Your task to perform on an android device: Go to Reddit.com Image 0: 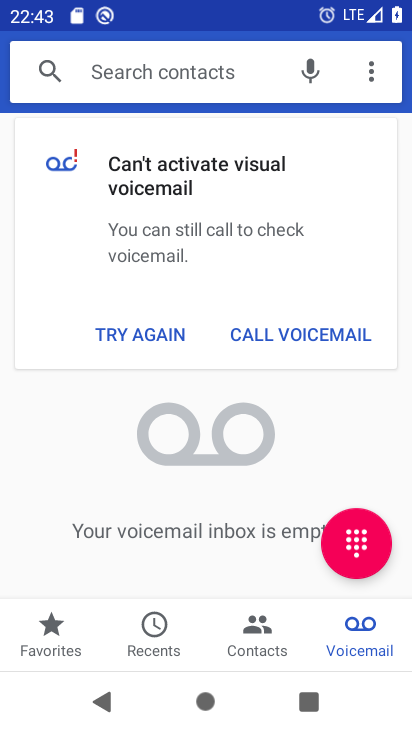
Step 0: press home button
Your task to perform on an android device: Go to Reddit.com Image 1: 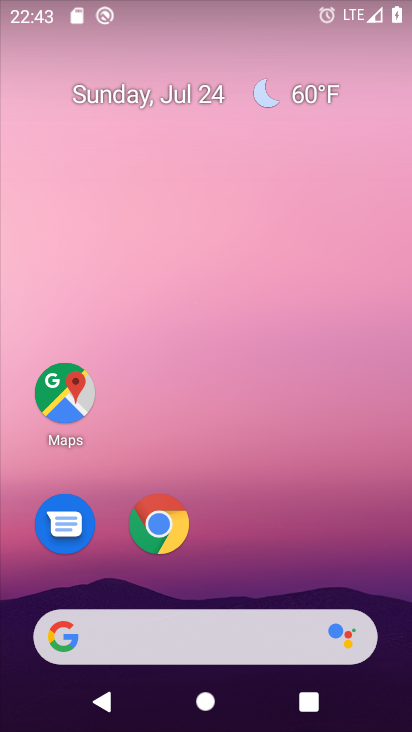
Step 1: click (209, 646)
Your task to perform on an android device: Go to Reddit.com Image 2: 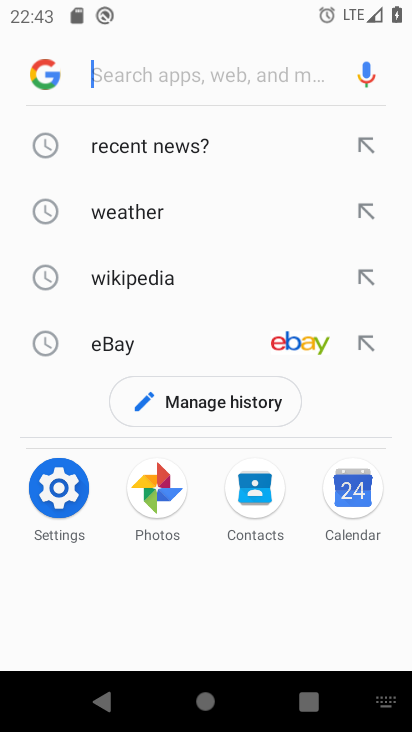
Step 2: type "reddit.com"
Your task to perform on an android device: Go to Reddit.com Image 3: 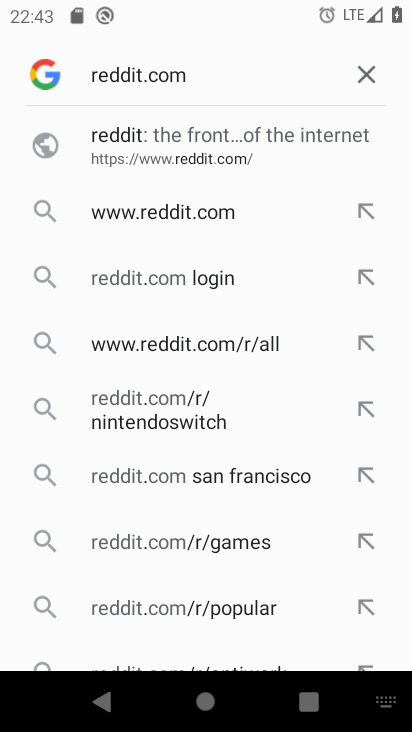
Step 3: click (156, 209)
Your task to perform on an android device: Go to Reddit.com Image 4: 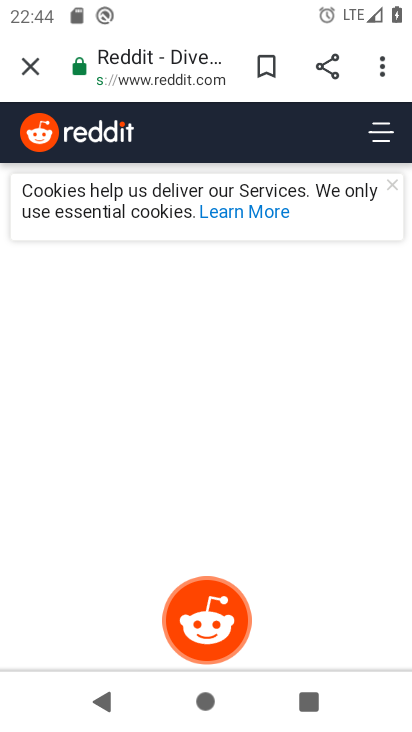
Step 4: click (210, 634)
Your task to perform on an android device: Go to Reddit.com Image 5: 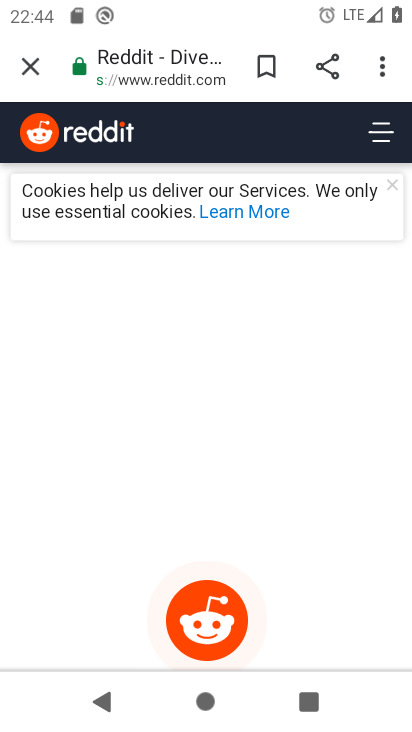
Step 5: task complete